Your task to perform on an android device: turn off wifi Image 0: 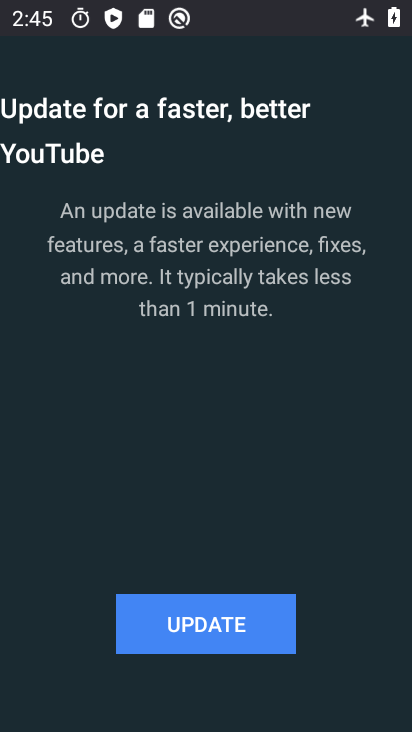
Step 0: press back button
Your task to perform on an android device: turn off wifi Image 1: 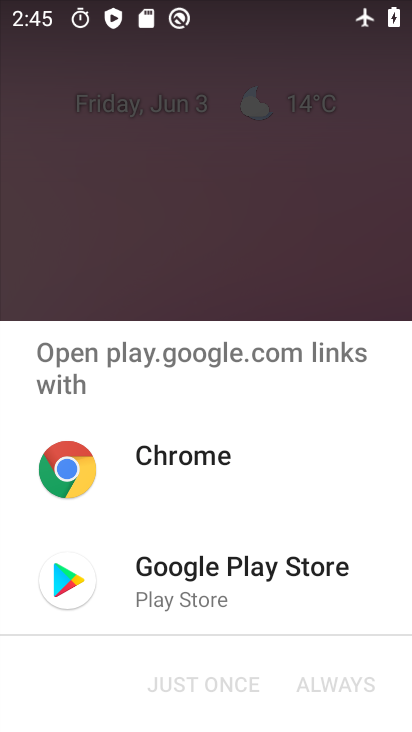
Step 1: press home button
Your task to perform on an android device: turn off wifi Image 2: 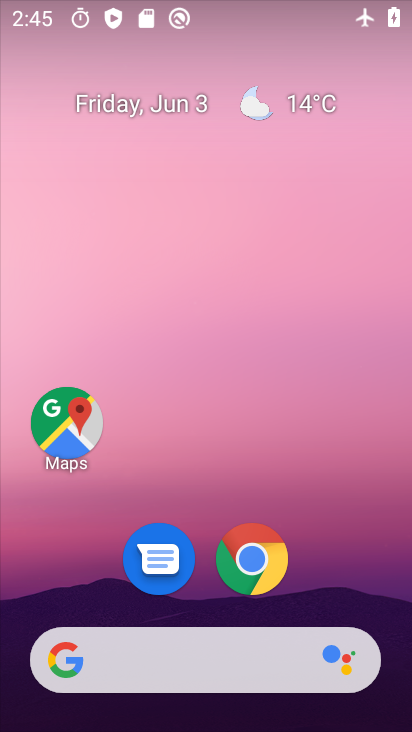
Step 2: drag from (218, 607) to (222, 23)
Your task to perform on an android device: turn off wifi Image 3: 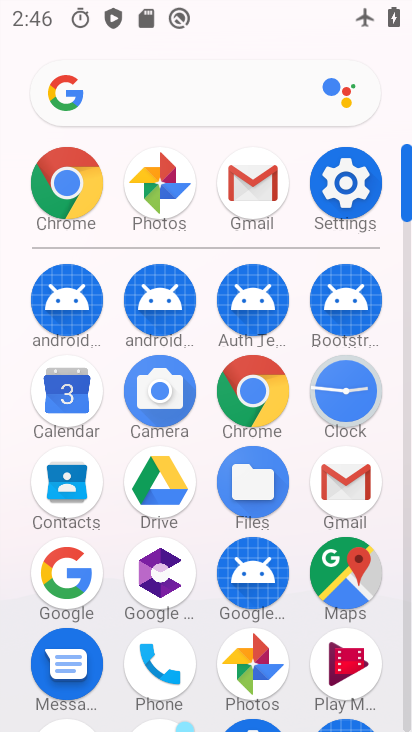
Step 3: click (357, 191)
Your task to perform on an android device: turn off wifi Image 4: 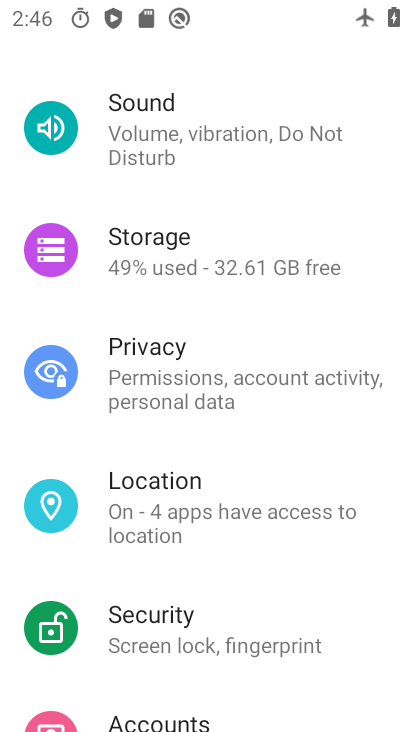
Step 4: drag from (238, 197) to (183, 591)
Your task to perform on an android device: turn off wifi Image 5: 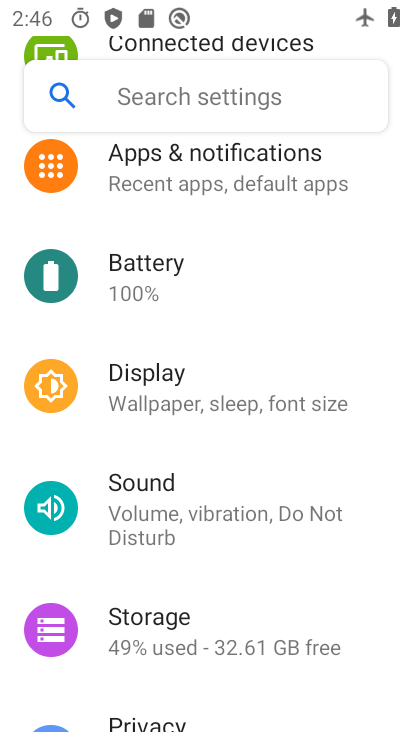
Step 5: drag from (133, 207) to (161, 706)
Your task to perform on an android device: turn off wifi Image 6: 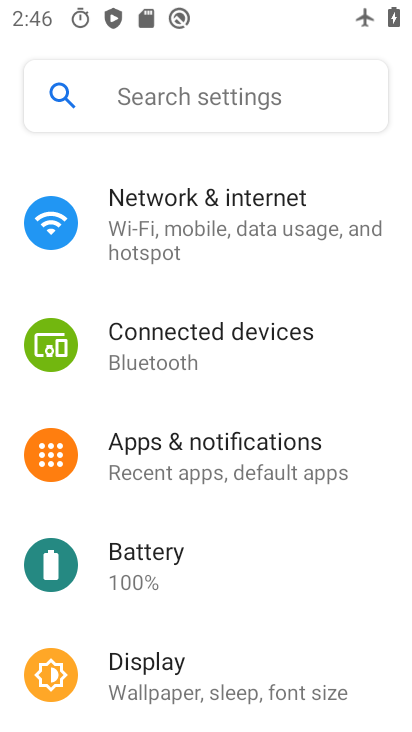
Step 6: click (183, 251)
Your task to perform on an android device: turn off wifi Image 7: 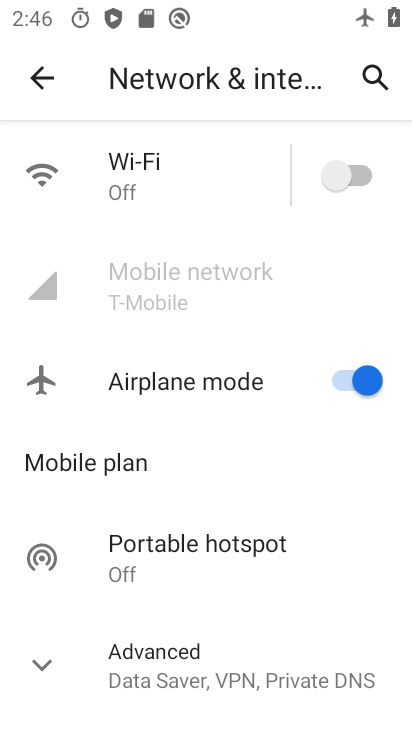
Step 7: click (164, 165)
Your task to perform on an android device: turn off wifi Image 8: 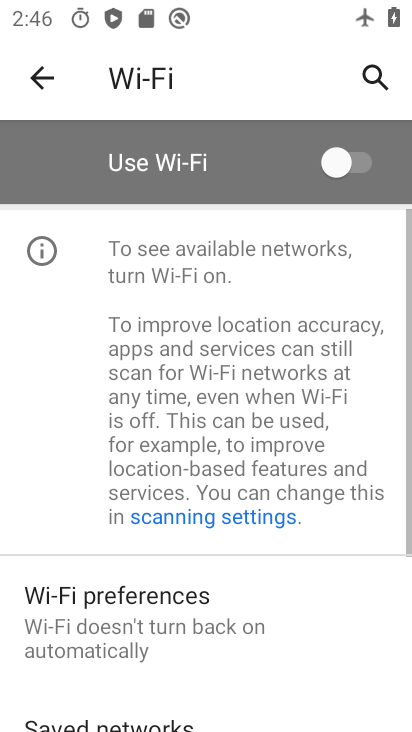
Step 8: task complete